Your task to perform on an android device: show emergency info Image 0: 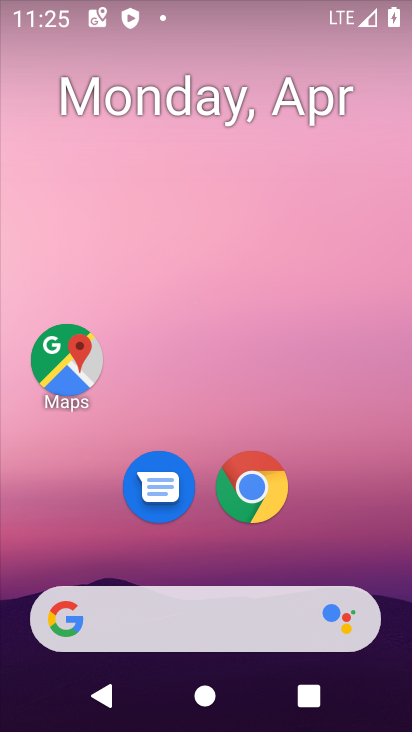
Step 0: drag from (389, 573) to (298, 39)
Your task to perform on an android device: show emergency info Image 1: 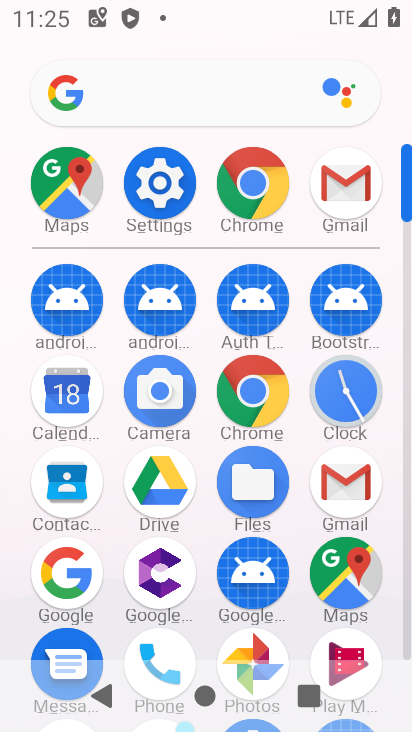
Step 1: click (160, 182)
Your task to perform on an android device: show emergency info Image 2: 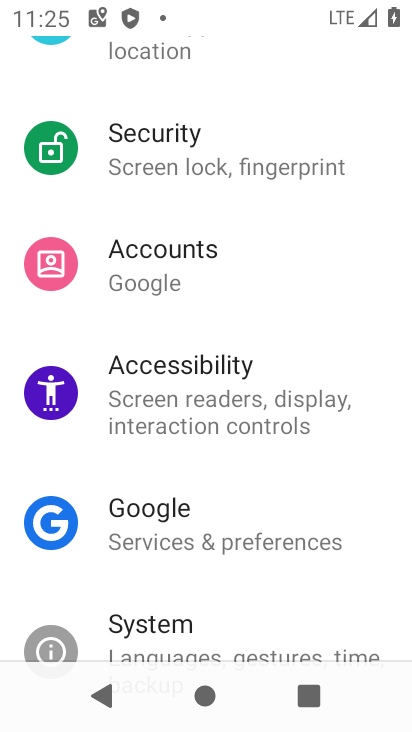
Step 2: drag from (286, 584) to (281, 143)
Your task to perform on an android device: show emergency info Image 3: 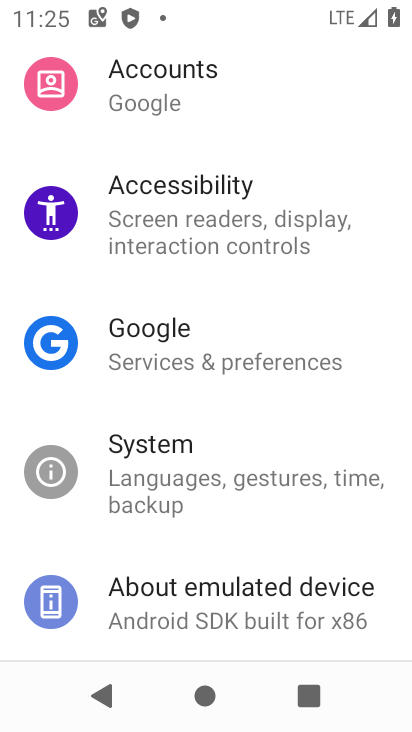
Step 3: click (338, 589)
Your task to perform on an android device: show emergency info Image 4: 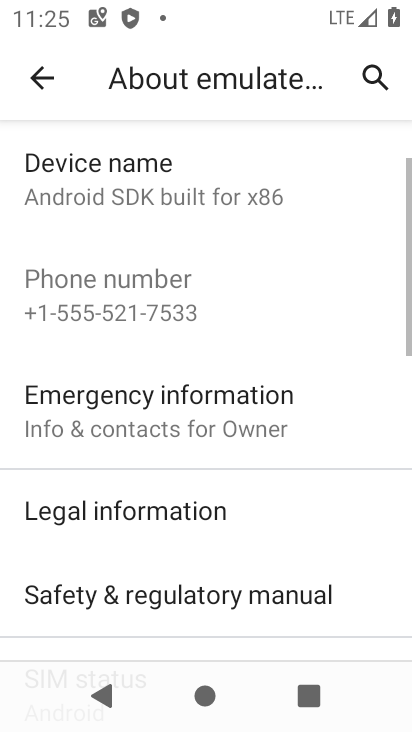
Step 4: click (288, 416)
Your task to perform on an android device: show emergency info Image 5: 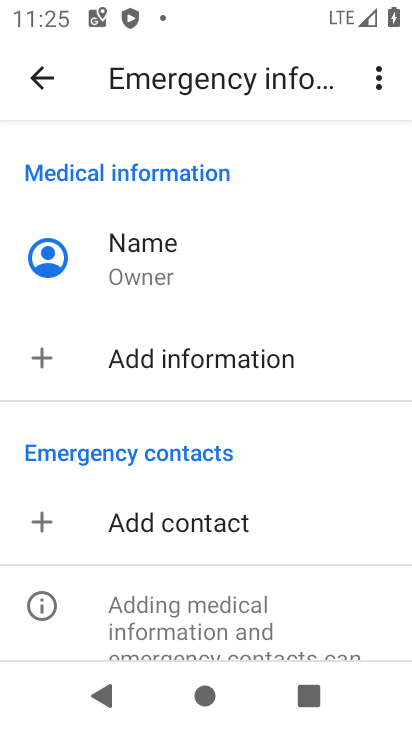
Step 5: task complete